Your task to perform on an android device: change alarm snooze length Image 0: 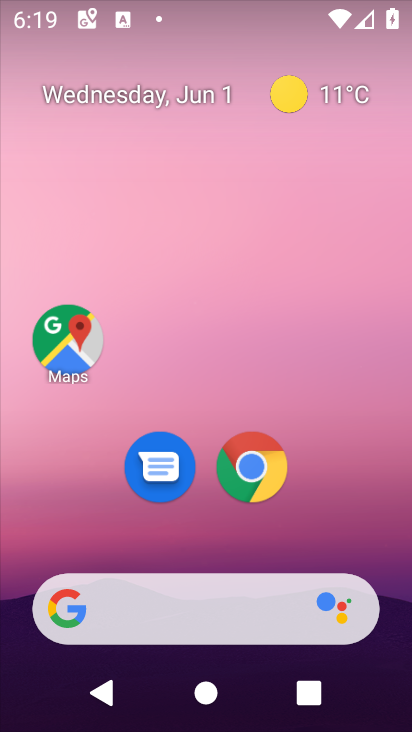
Step 0: drag from (348, 467) to (183, 22)
Your task to perform on an android device: change alarm snooze length Image 1: 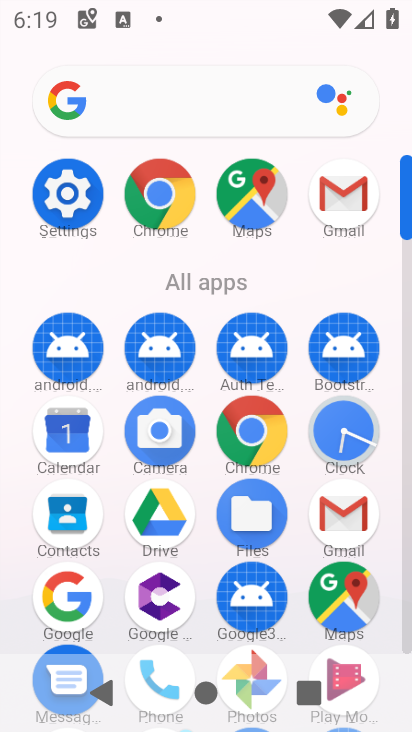
Step 1: click (351, 414)
Your task to perform on an android device: change alarm snooze length Image 2: 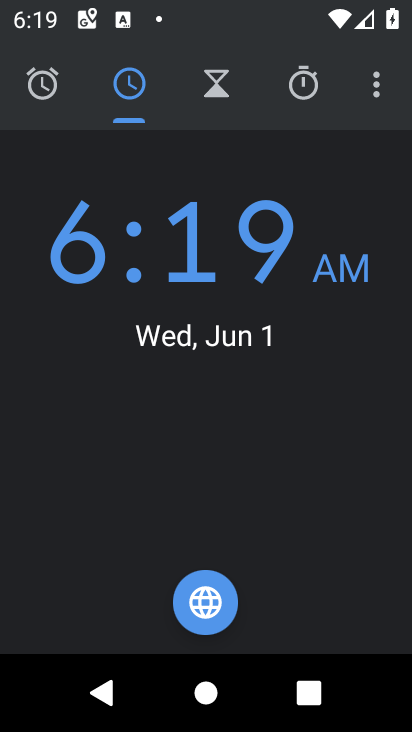
Step 2: click (378, 84)
Your task to perform on an android device: change alarm snooze length Image 3: 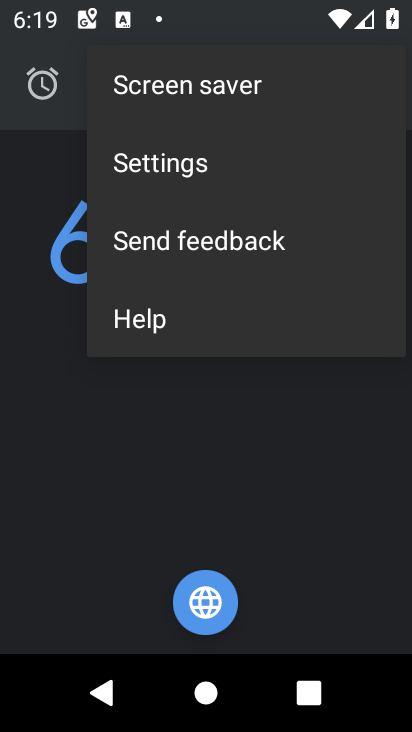
Step 3: click (189, 158)
Your task to perform on an android device: change alarm snooze length Image 4: 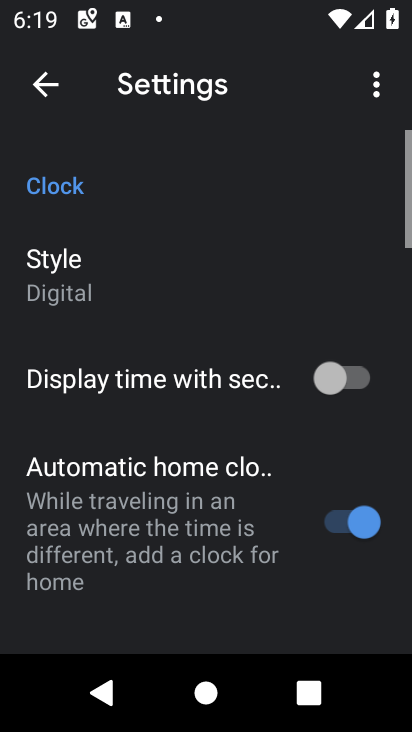
Step 4: drag from (237, 528) to (207, 144)
Your task to perform on an android device: change alarm snooze length Image 5: 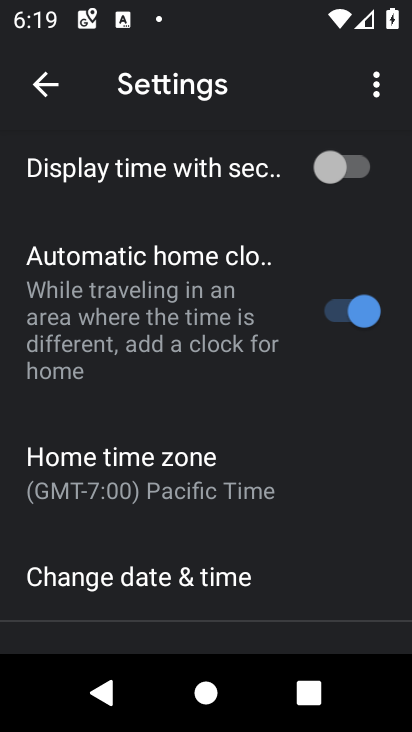
Step 5: drag from (228, 447) to (194, 150)
Your task to perform on an android device: change alarm snooze length Image 6: 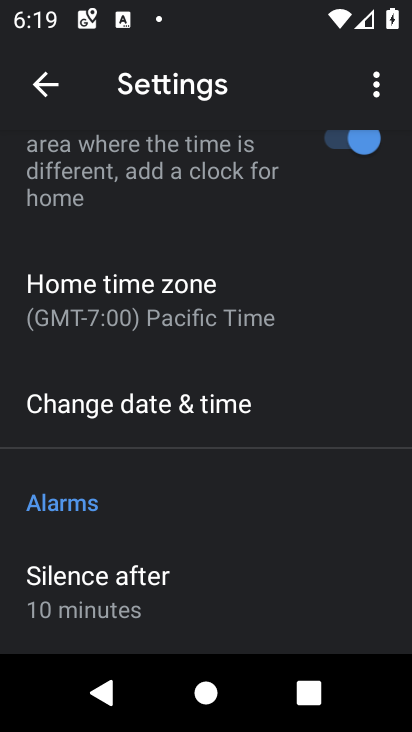
Step 6: drag from (181, 524) to (201, 159)
Your task to perform on an android device: change alarm snooze length Image 7: 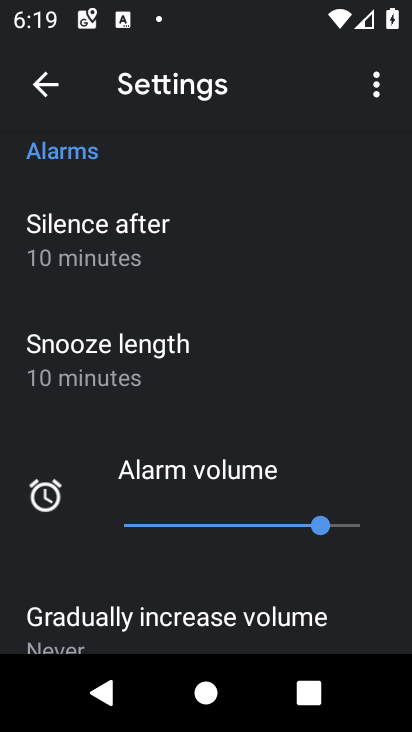
Step 7: click (166, 360)
Your task to perform on an android device: change alarm snooze length Image 8: 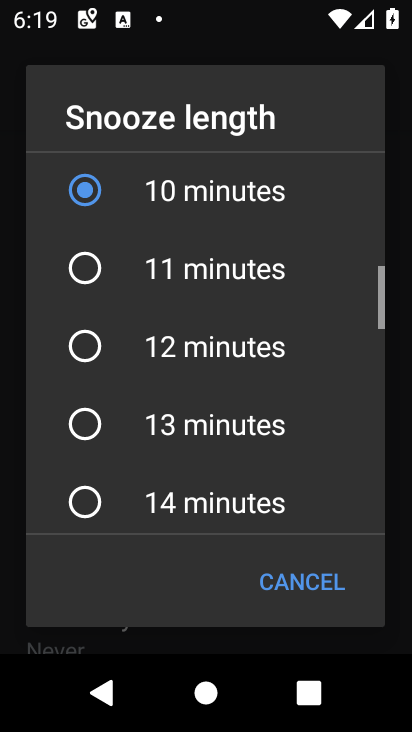
Step 8: click (216, 267)
Your task to perform on an android device: change alarm snooze length Image 9: 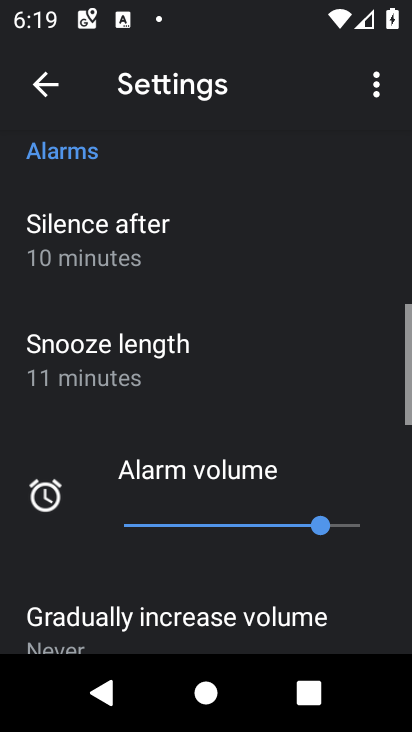
Step 9: task complete